Your task to perform on an android device: set the timer Image 0: 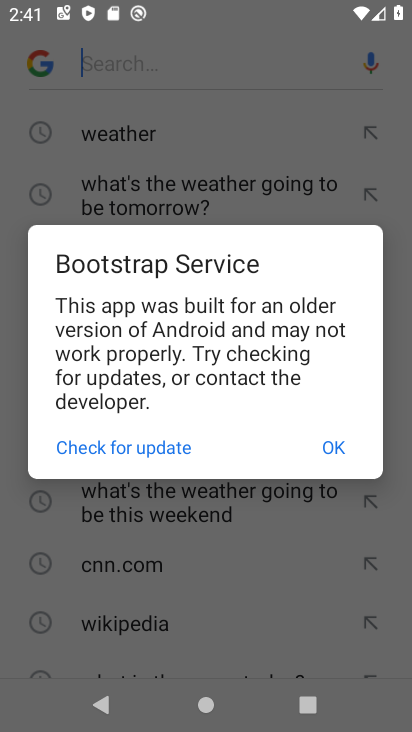
Step 0: press home button
Your task to perform on an android device: set the timer Image 1: 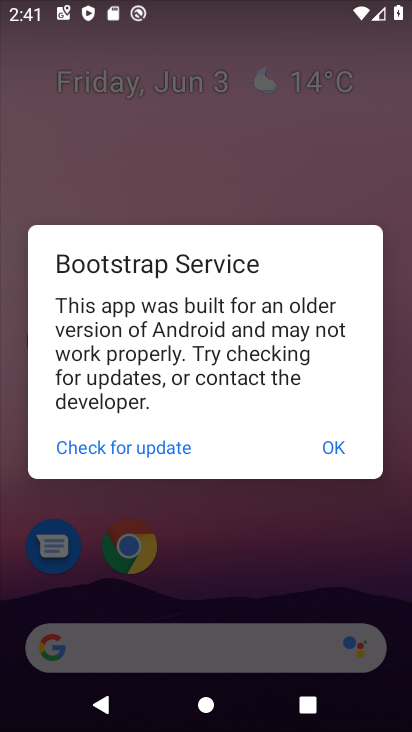
Step 1: click (334, 435)
Your task to perform on an android device: set the timer Image 2: 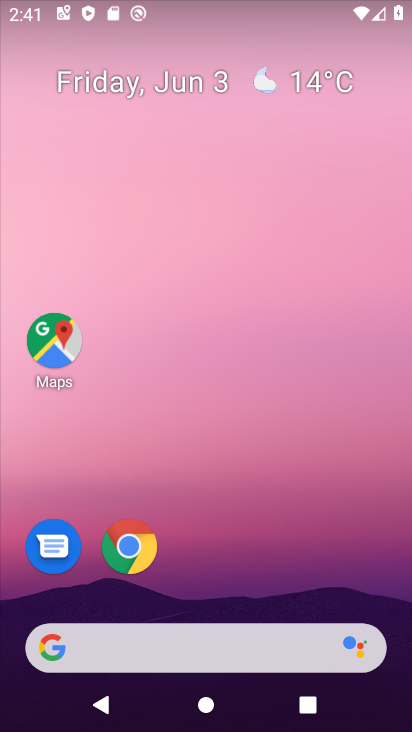
Step 2: drag from (291, 574) to (288, 63)
Your task to perform on an android device: set the timer Image 3: 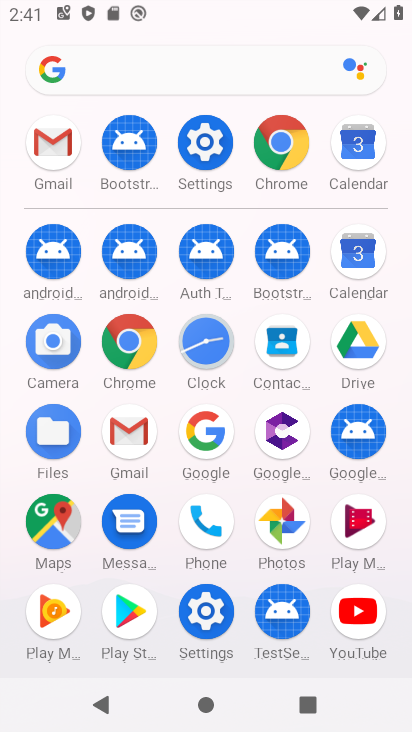
Step 3: click (206, 334)
Your task to perform on an android device: set the timer Image 4: 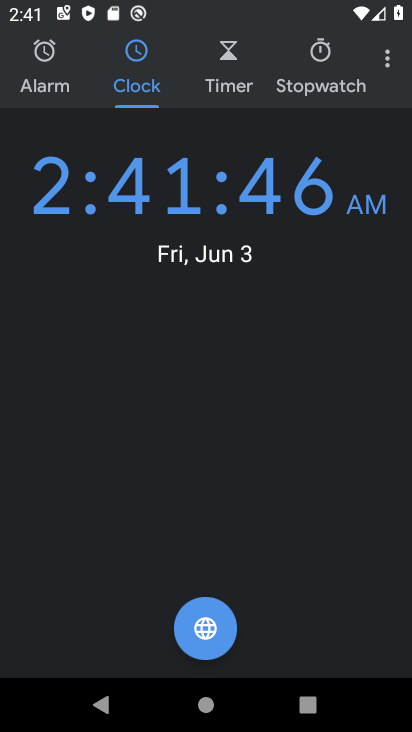
Step 4: click (220, 57)
Your task to perform on an android device: set the timer Image 5: 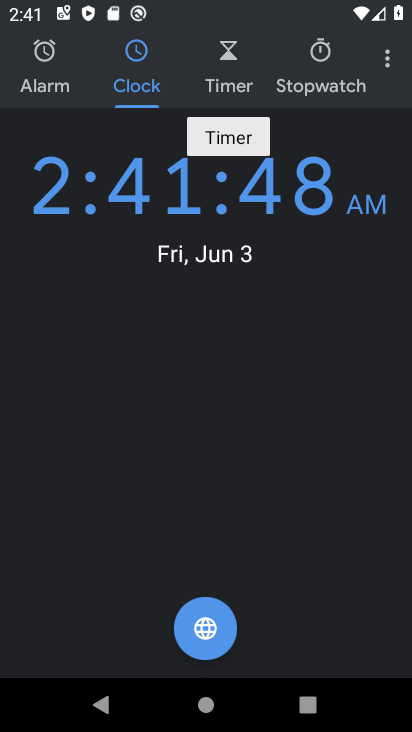
Step 5: click (219, 60)
Your task to perform on an android device: set the timer Image 6: 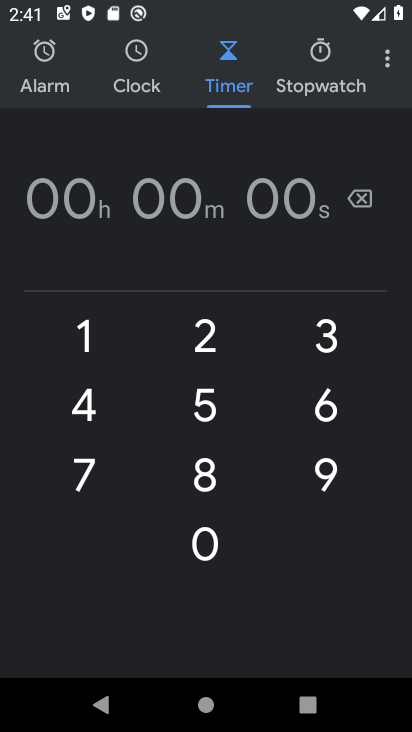
Step 6: click (232, 349)
Your task to perform on an android device: set the timer Image 7: 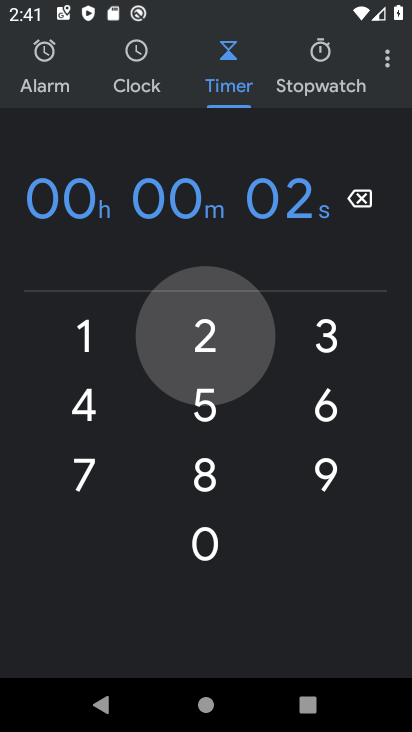
Step 7: click (207, 391)
Your task to perform on an android device: set the timer Image 8: 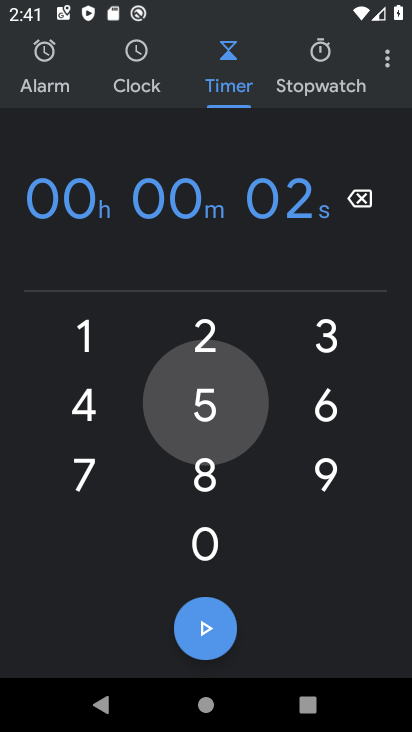
Step 8: click (201, 302)
Your task to perform on an android device: set the timer Image 9: 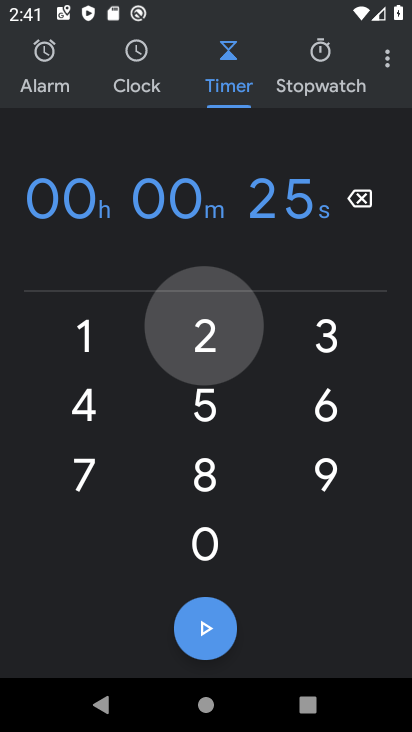
Step 9: click (207, 346)
Your task to perform on an android device: set the timer Image 10: 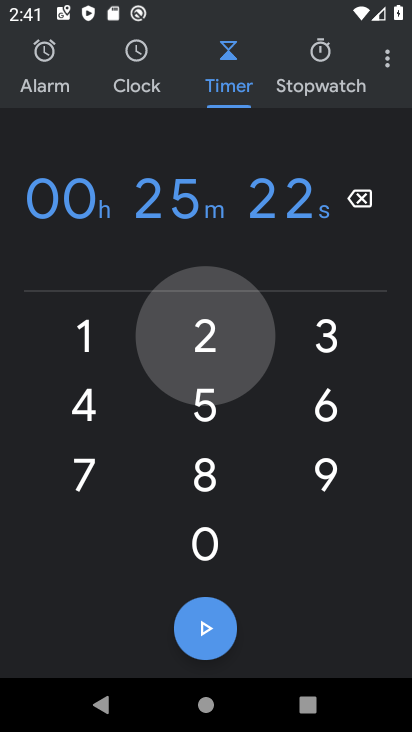
Step 10: click (203, 328)
Your task to perform on an android device: set the timer Image 11: 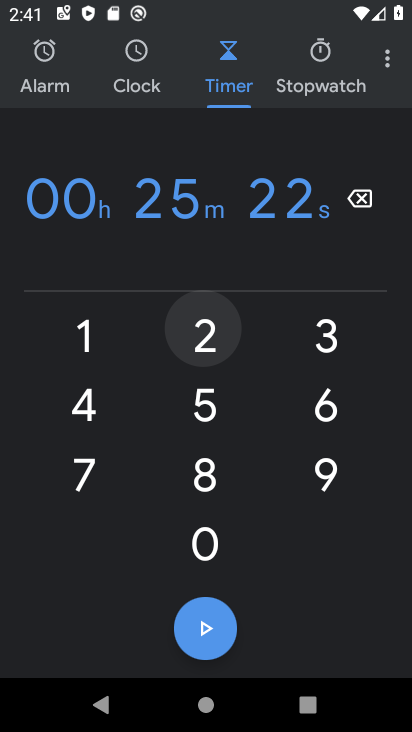
Step 11: click (206, 352)
Your task to perform on an android device: set the timer Image 12: 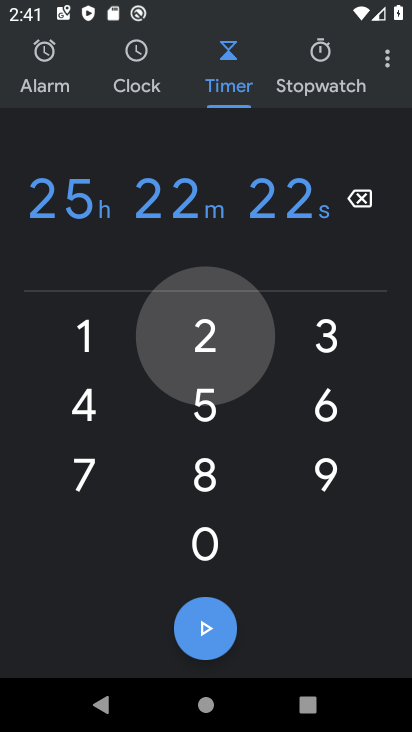
Step 12: click (205, 350)
Your task to perform on an android device: set the timer Image 13: 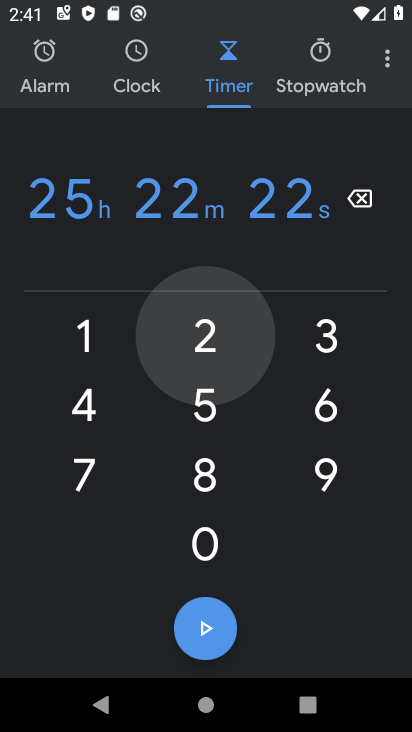
Step 13: click (217, 415)
Your task to perform on an android device: set the timer Image 14: 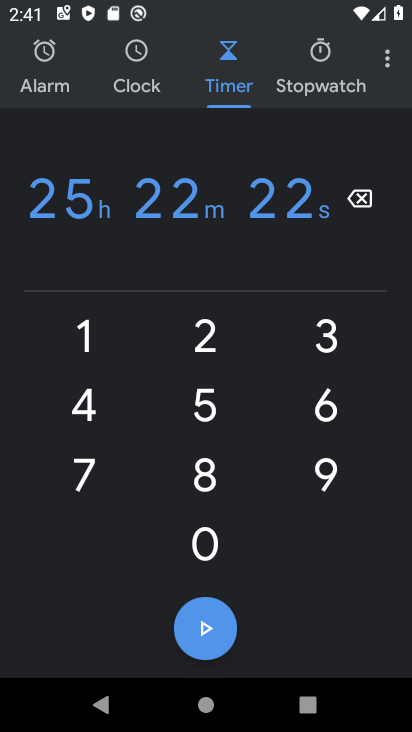
Step 14: task complete